Your task to perform on an android device: install app "Google Pay: Save, Pay, Manage" Image 0: 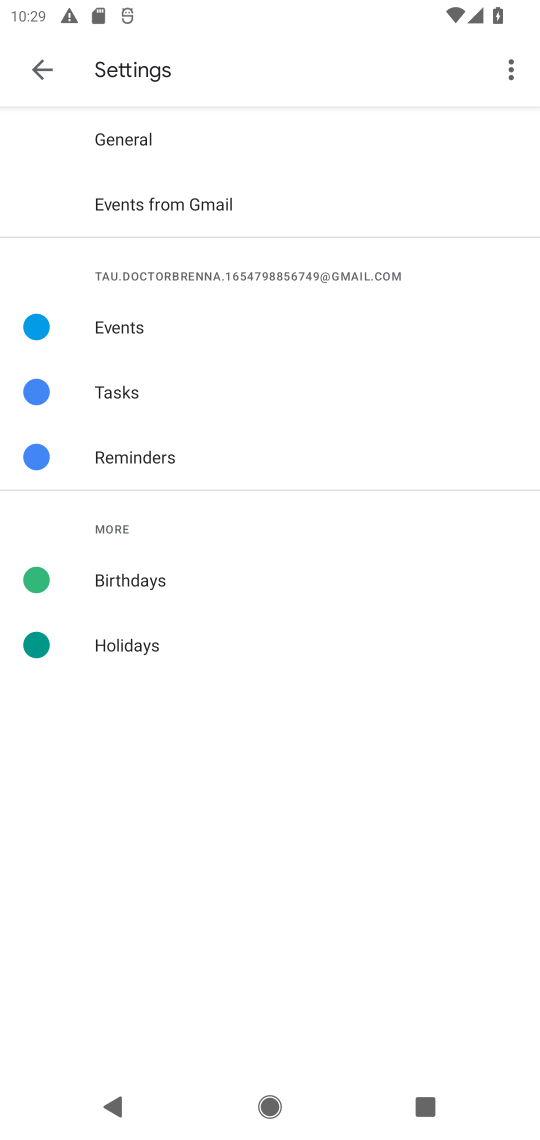
Step 0: press home button
Your task to perform on an android device: install app "Google Pay: Save, Pay, Manage" Image 1: 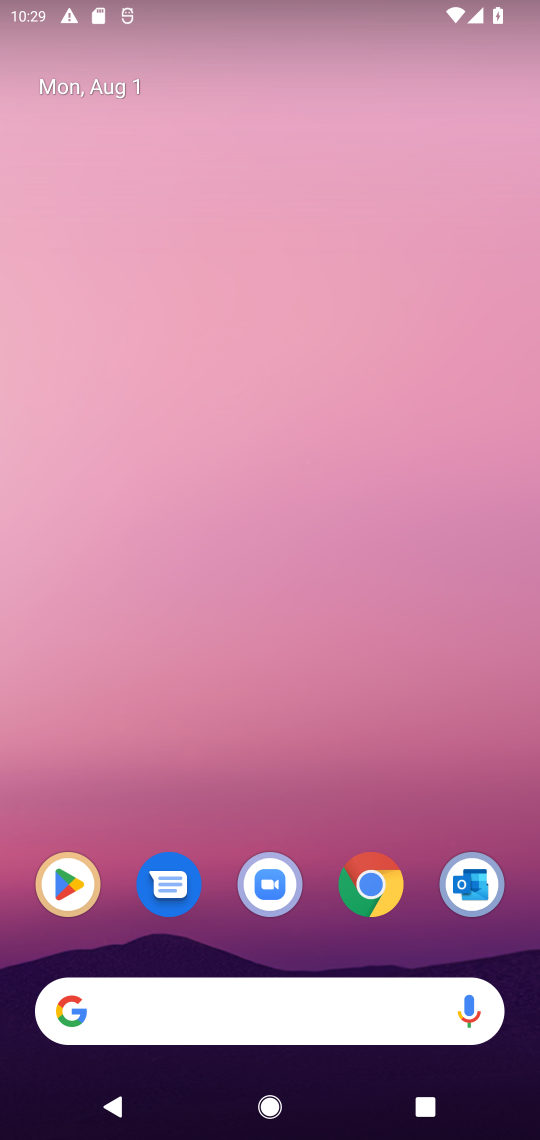
Step 1: click (49, 897)
Your task to perform on an android device: install app "Google Pay: Save, Pay, Manage" Image 2: 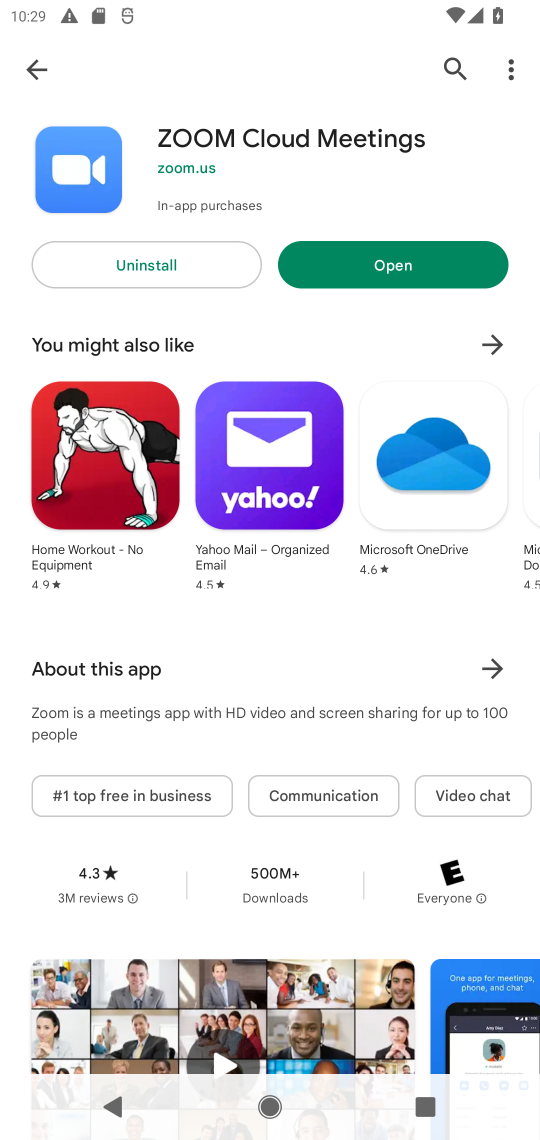
Step 2: click (457, 73)
Your task to perform on an android device: install app "Google Pay: Save, Pay, Manage" Image 3: 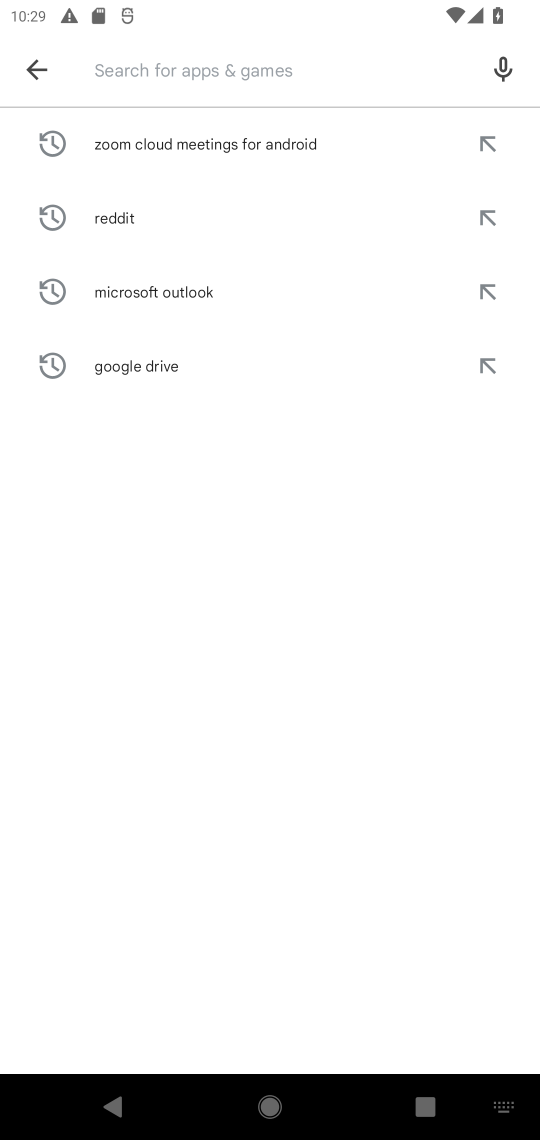
Step 3: type "google pay: save, pay, manage"
Your task to perform on an android device: install app "Google Pay: Save, Pay, Manage" Image 4: 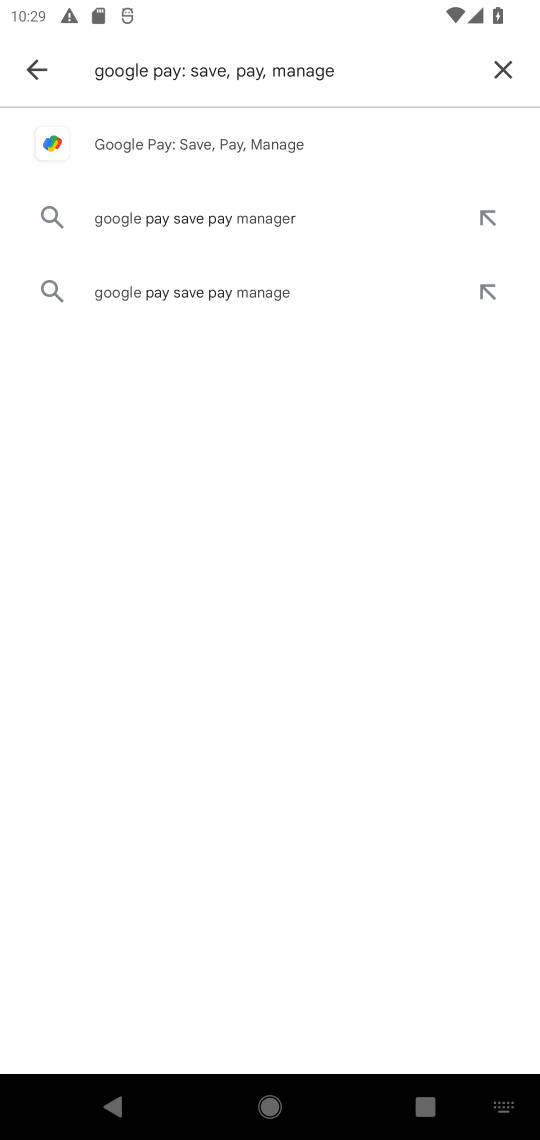
Step 4: click (203, 132)
Your task to perform on an android device: install app "Google Pay: Save, Pay, Manage" Image 5: 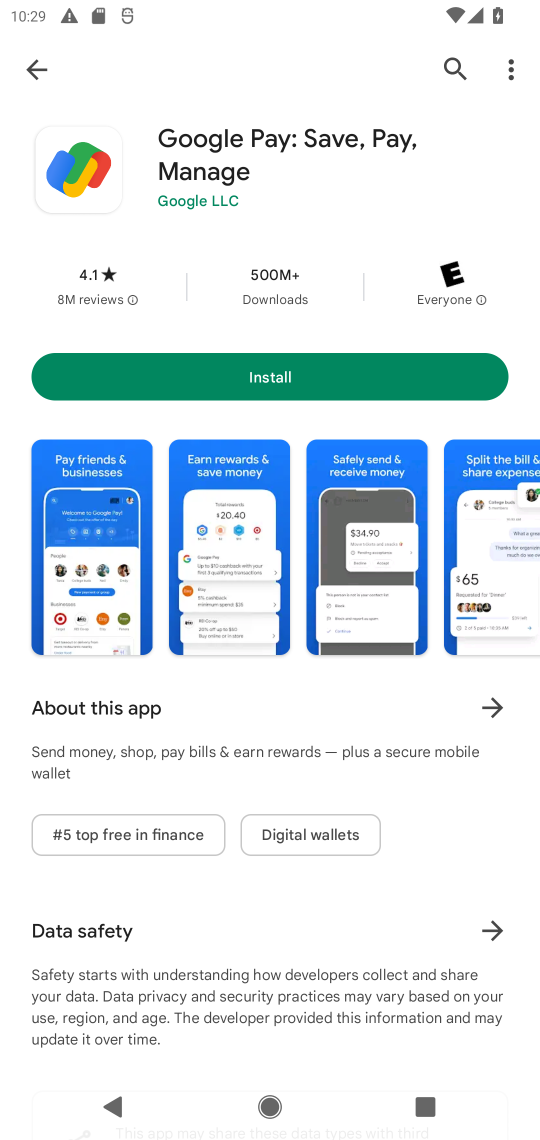
Step 5: click (157, 380)
Your task to perform on an android device: install app "Google Pay: Save, Pay, Manage" Image 6: 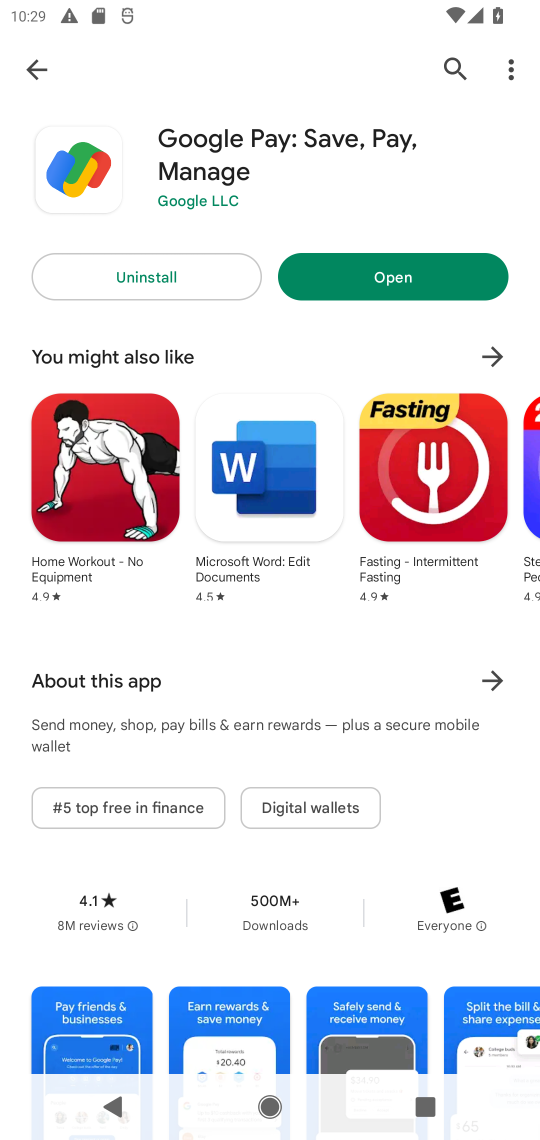
Step 6: task complete